Your task to perform on an android device: clear all cookies in the chrome app Image 0: 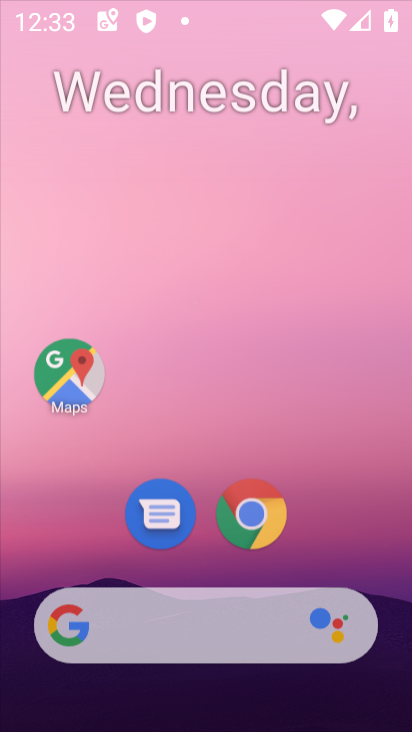
Step 0: click (294, 115)
Your task to perform on an android device: clear all cookies in the chrome app Image 1: 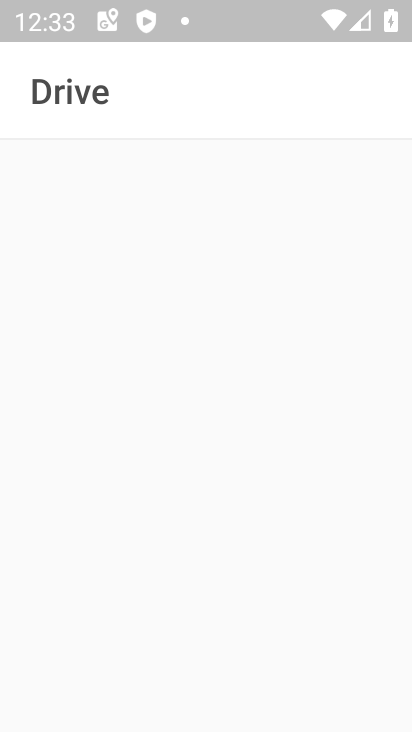
Step 1: press home button
Your task to perform on an android device: clear all cookies in the chrome app Image 2: 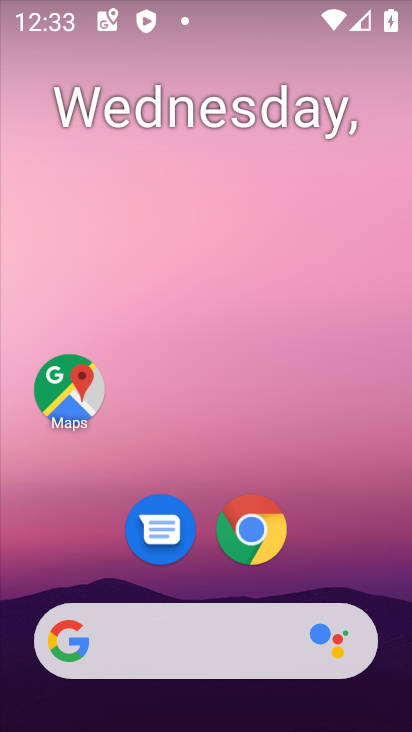
Step 2: click (254, 531)
Your task to perform on an android device: clear all cookies in the chrome app Image 3: 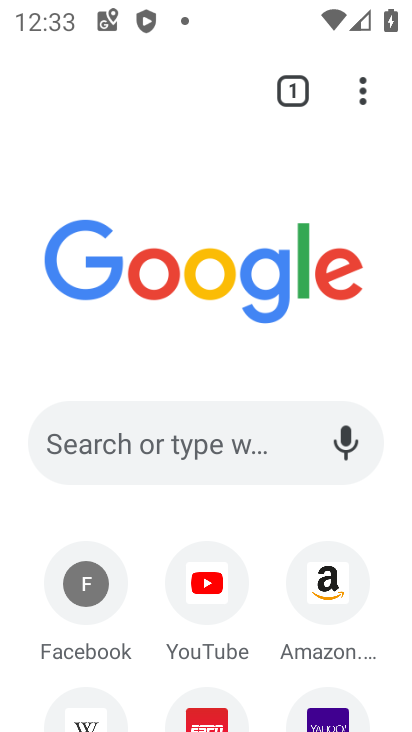
Step 3: click (362, 99)
Your task to perform on an android device: clear all cookies in the chrome app Image 4: 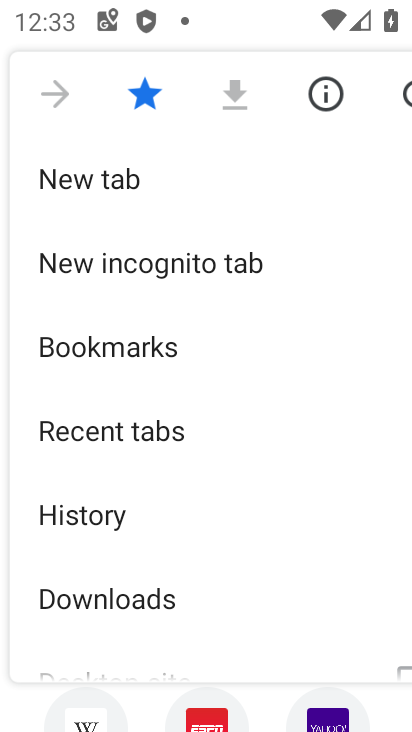
Step 4: click (113, 511)
Your task to perform on an android device: clear all cookies in the chrome app Image 5: 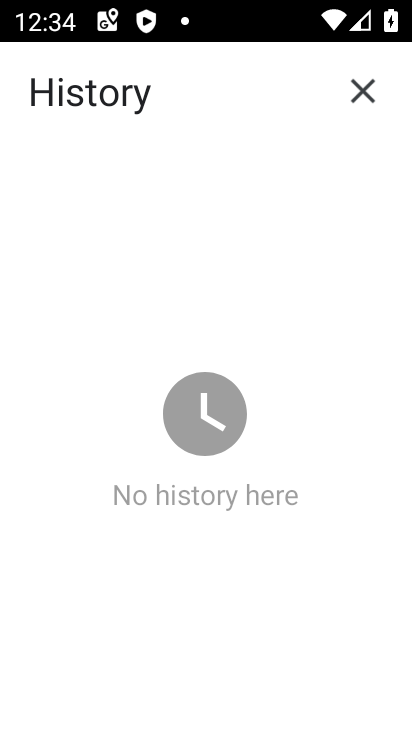
Step 5: task complete